Your task to perform on an android device: toggle airplane mode Image 0: 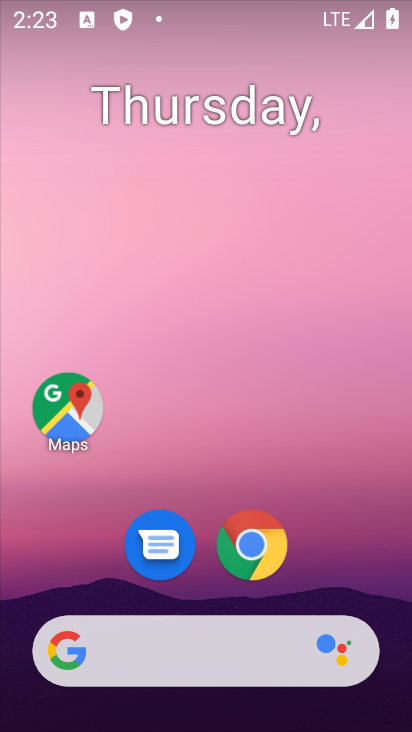
Step 0: drag from (266, 636) to (209, 6)
Your task to perform on an android device: toggle airplane mode Image 1: 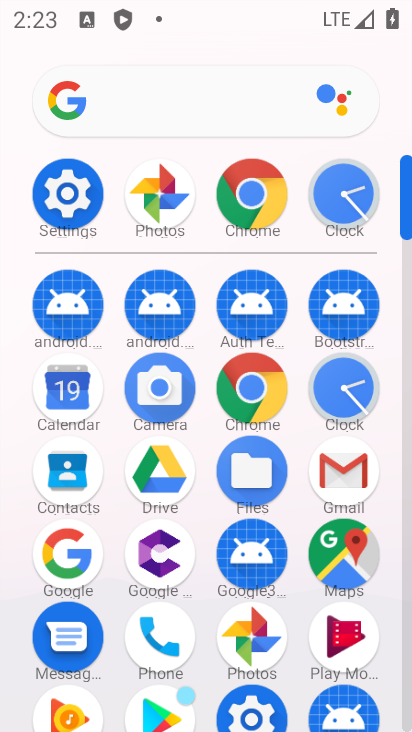
Step 1: drag from (202, 2) to (225, 642)
Your task to perform on an android device: toggle airplane mode Image 2: 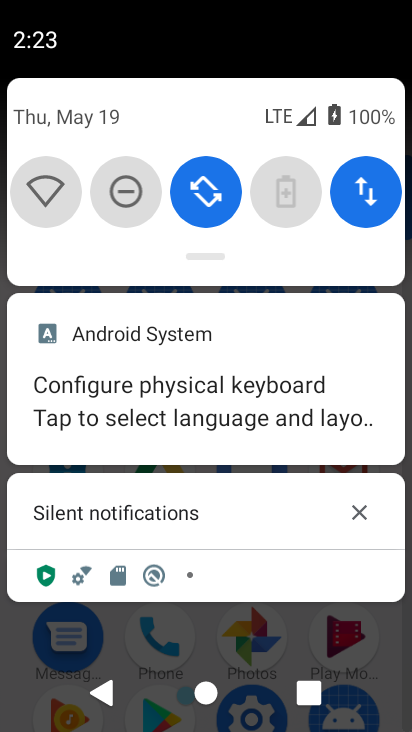
Step 2: drag from (252, 254) to (262, 671)
Your task to perform on an android device: toggle airplane mode Image 3: 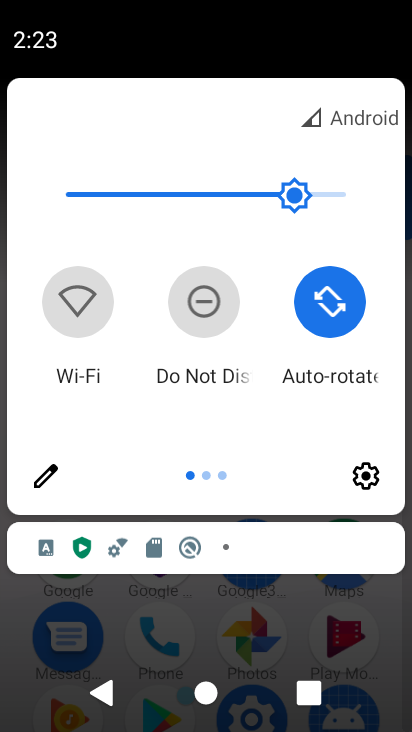
Step 3: drag from (343, 394) to (56, 410)
Your task to perform on an android device: toggle airplane mode Image 4: 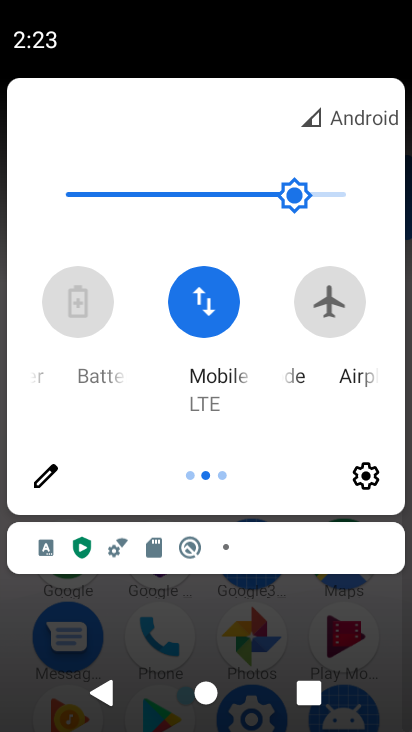
Step 4: click (335, 306)
Your task to perform on an android device: toggle airplane mode Image 5: 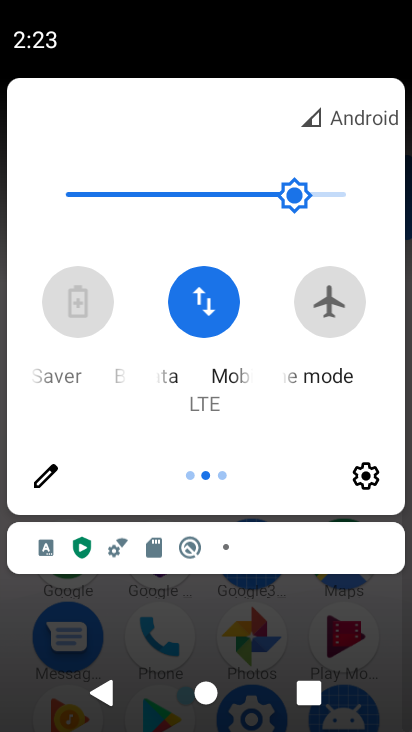
Step 5: click (331, 296)
Your task to perform on an android device: toggle airplane mode Image 6: 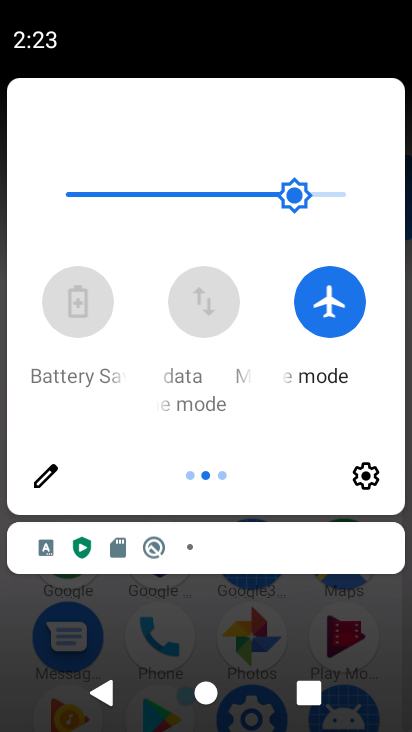
Step 6: task complete